Your task to perform on an android device: open app "Facebook Messenger" (install if not already installed) Image 0: 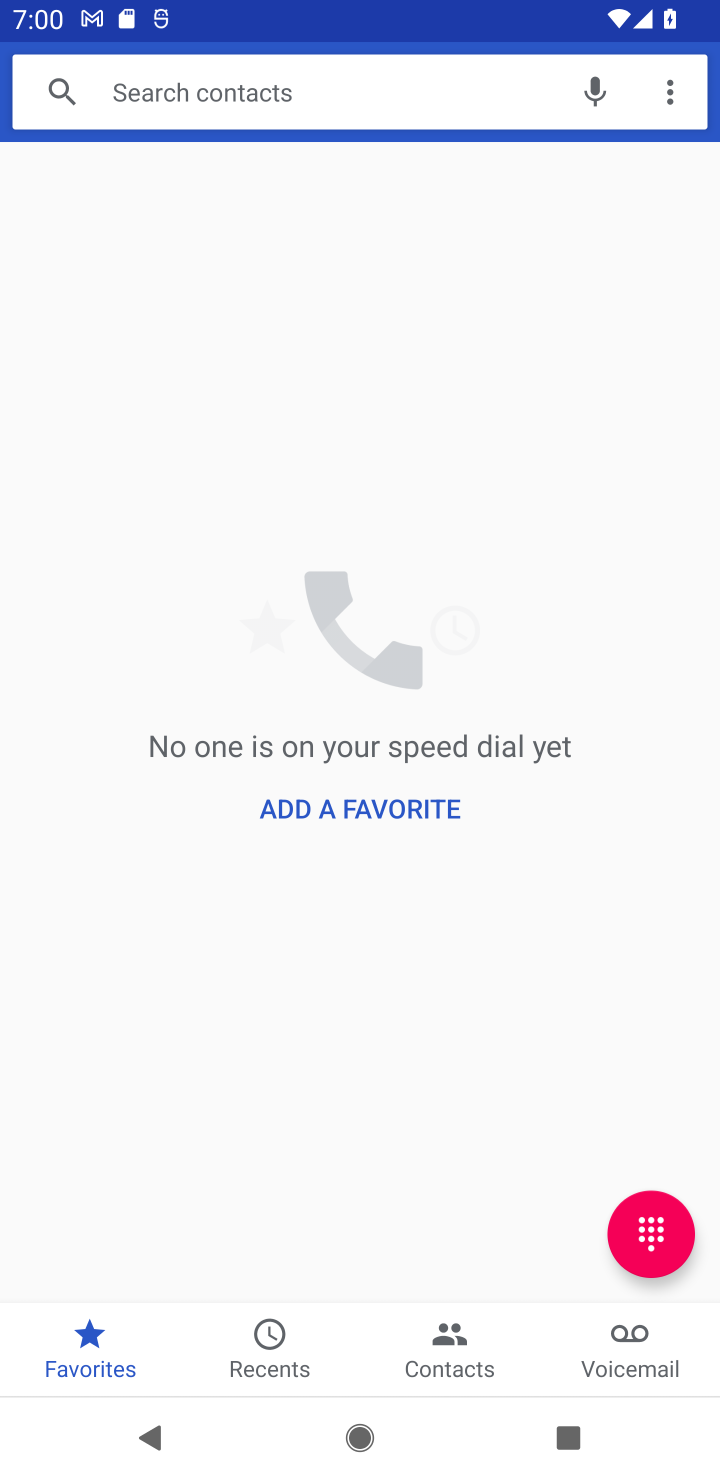
Step 0: press home button
Your task to perform on an android device: open app "Facebook Messenger" (install if not already installed) Image 1: 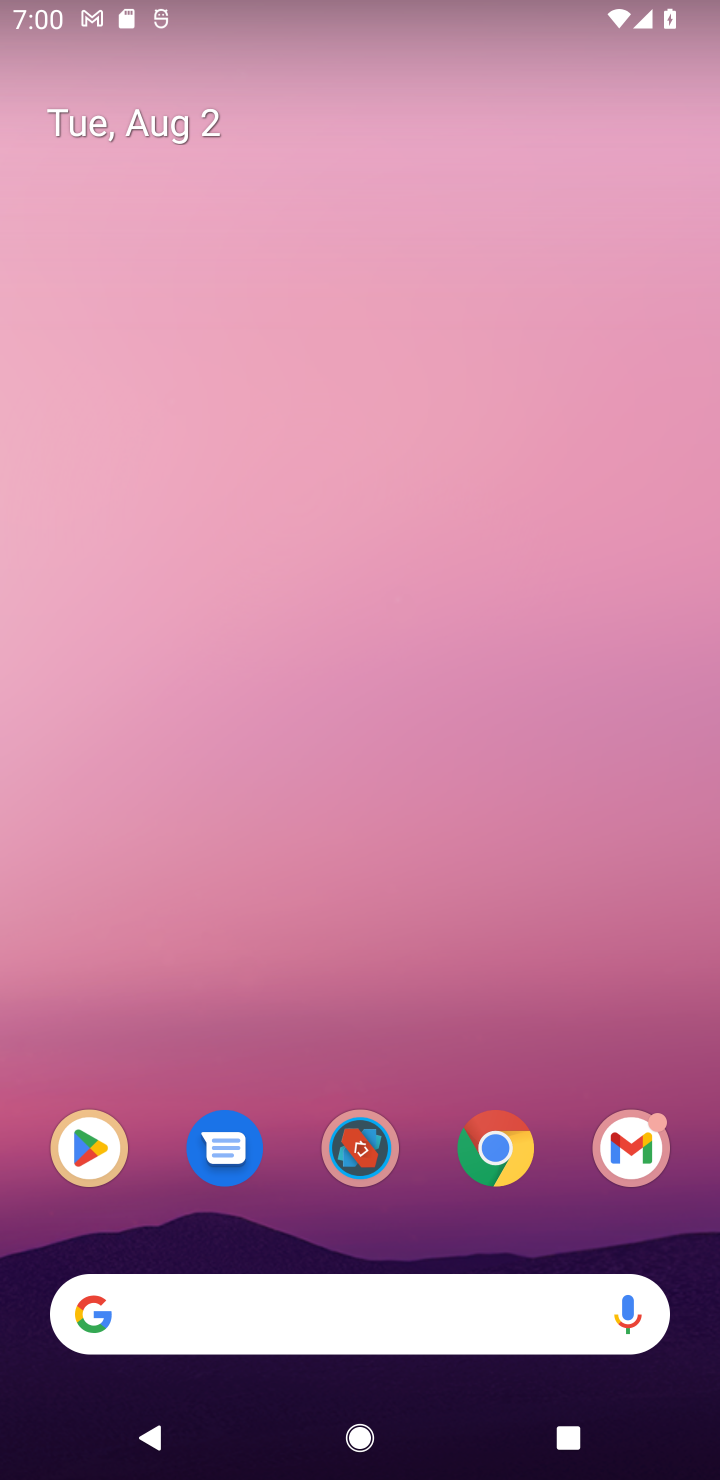
Step 1: drag from (627, 1007) to (263, 34)
Your task to perform on an android device: open app "Facebook Messenger" (install if not already installed) Image 2: 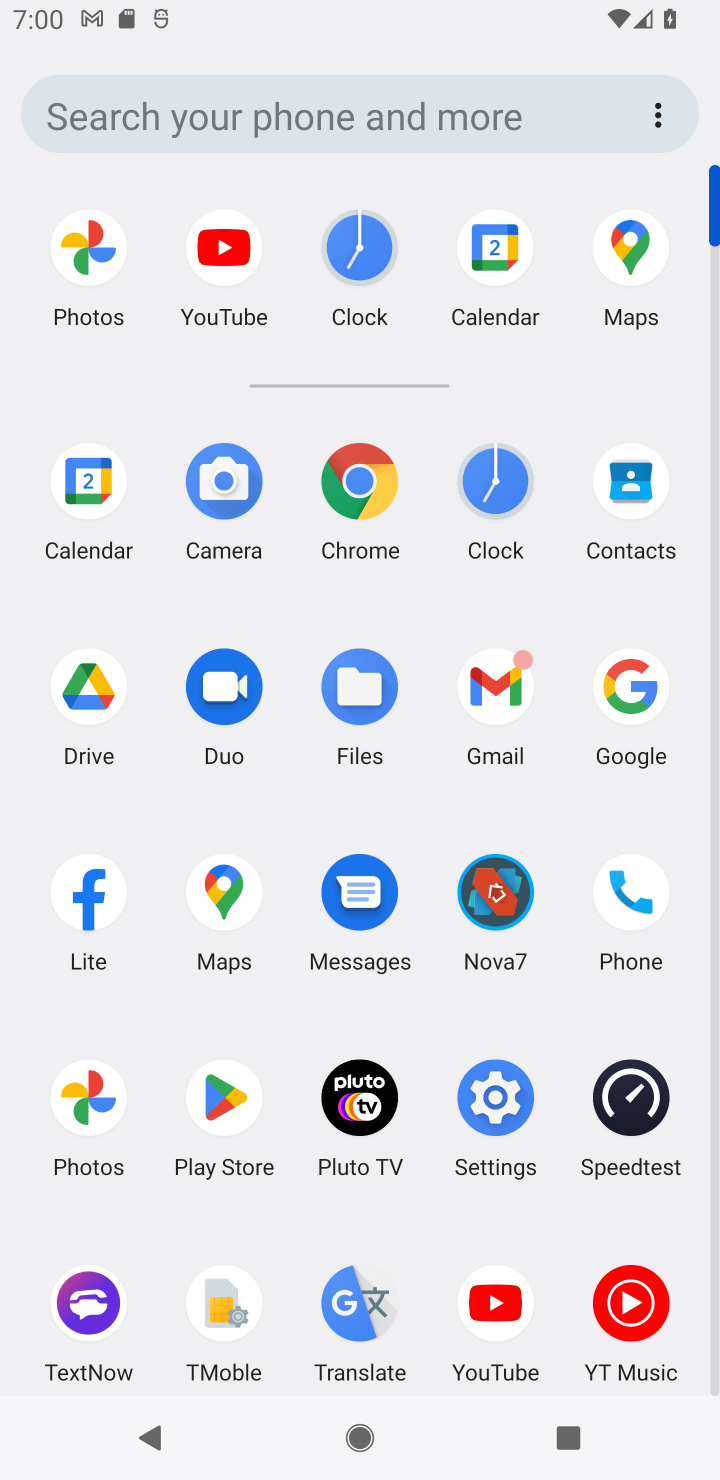
Step 2: click (201, 1083)
Your task to perform on an android device: open app "Facebook Messenger" (install if not already installed) Image 3: 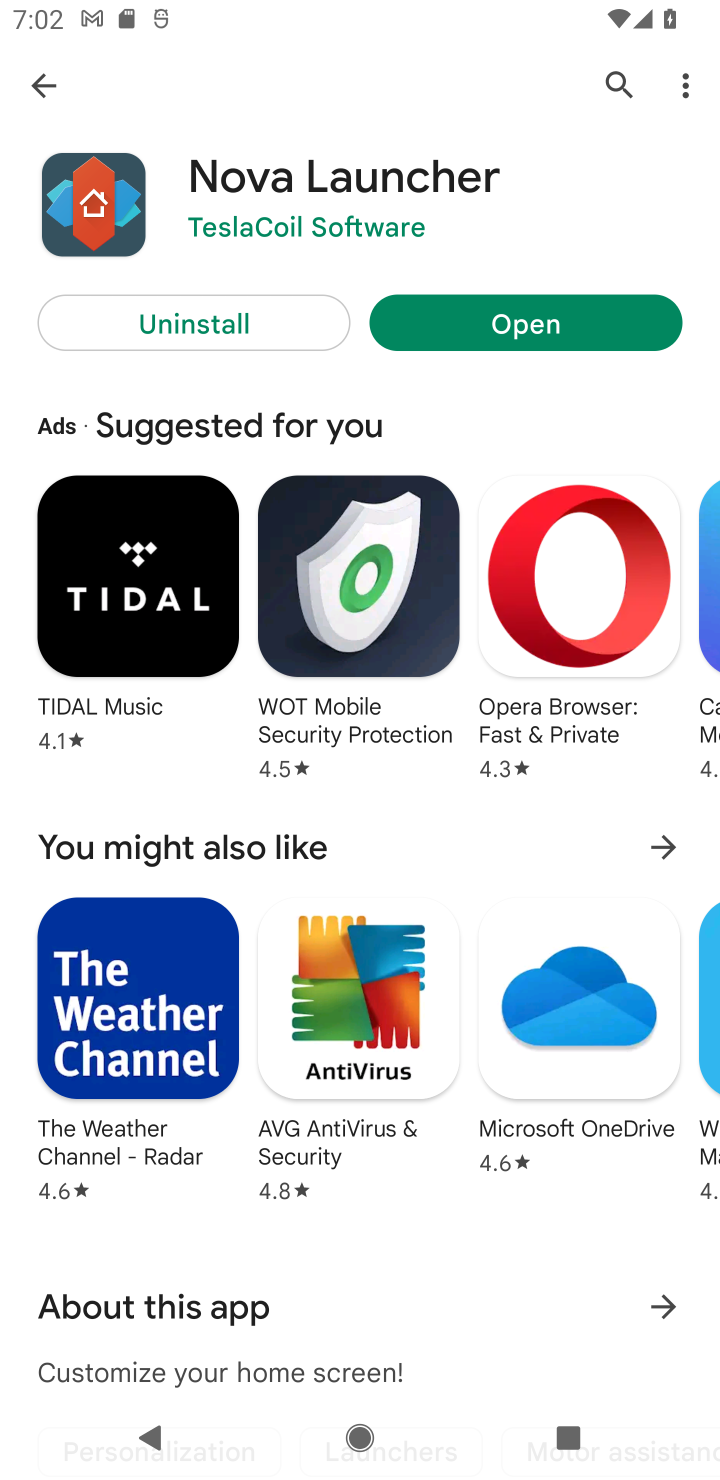
Step 3: press back button
Your task to perform on an android device: open app "Facebook Messenger" (install if not already installed) Image 4: 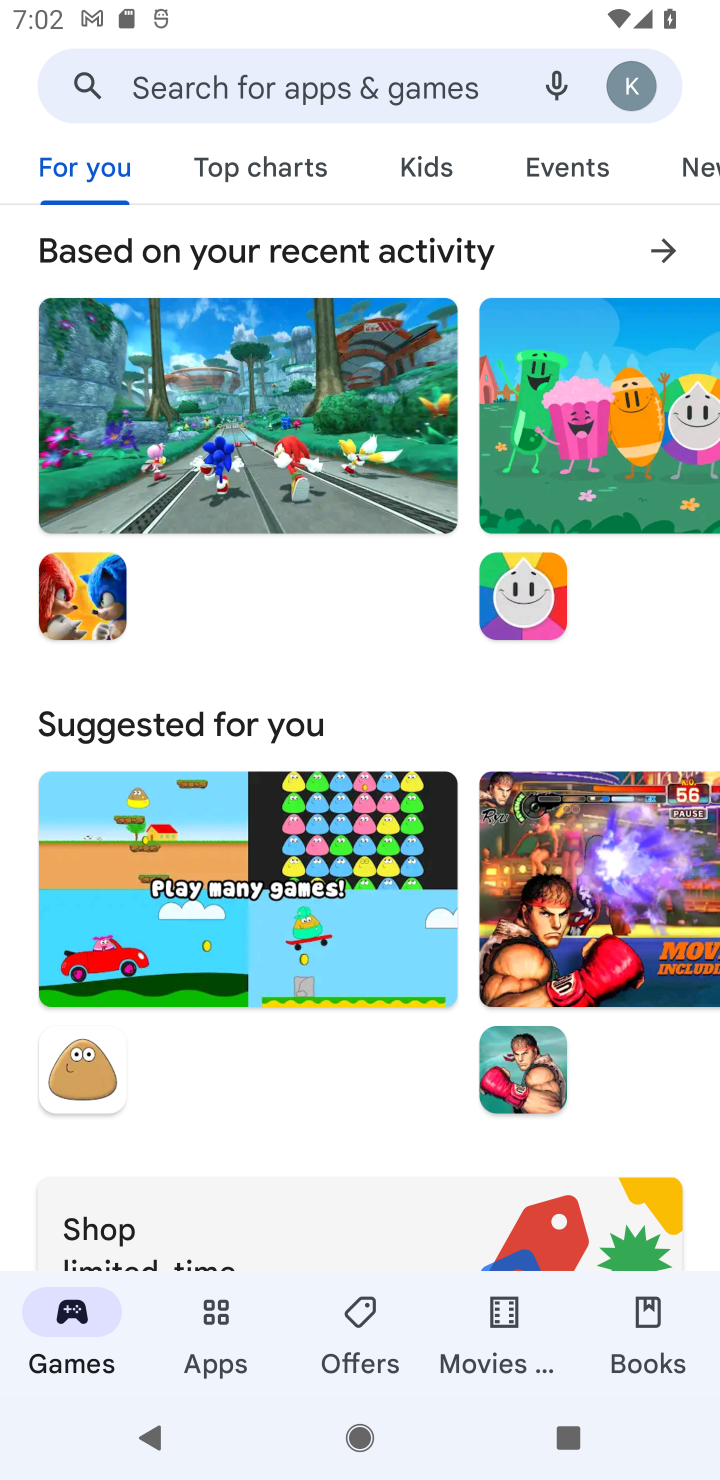
Step 4: click (329, 72)
Your task to perform on an android device: open app "Facebook Messenger" (install if not already installed) Image 5: 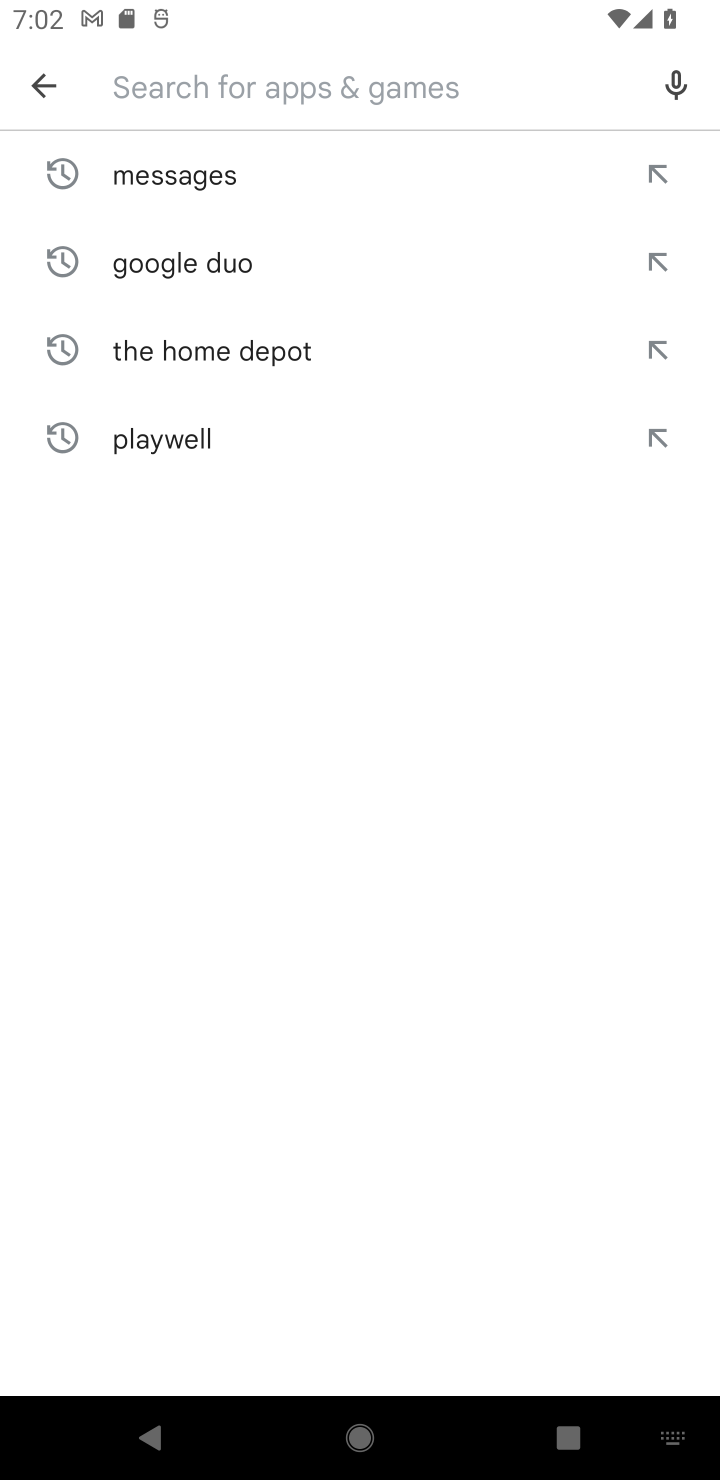
Step 5: type "Facebook Messenger"
Your task to perform on an android device: open app "Facebook Messenger" (install if not already installed) Image 6: 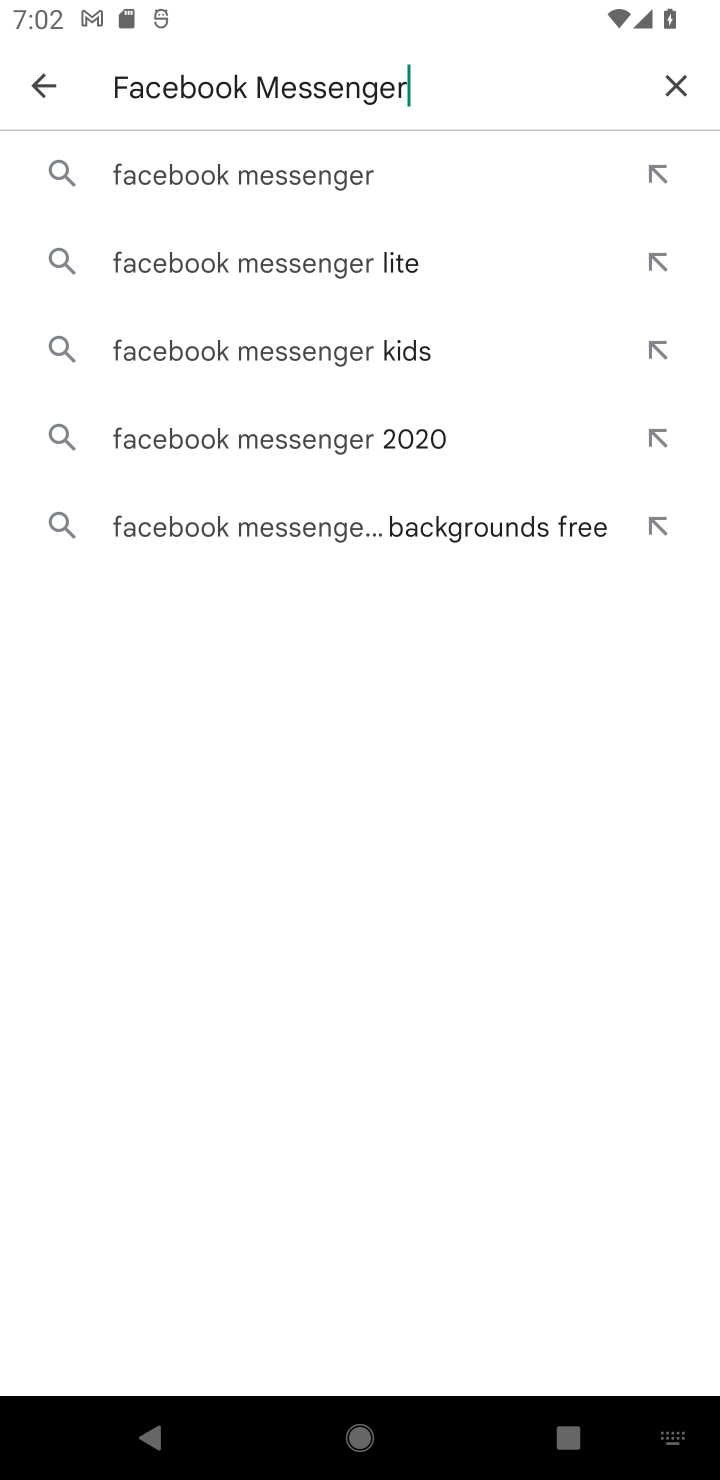
Step 6: click (208, 184)
Your task to perform on an android device: open app "Facebook Messenger" (install if not already installed) Image 7: 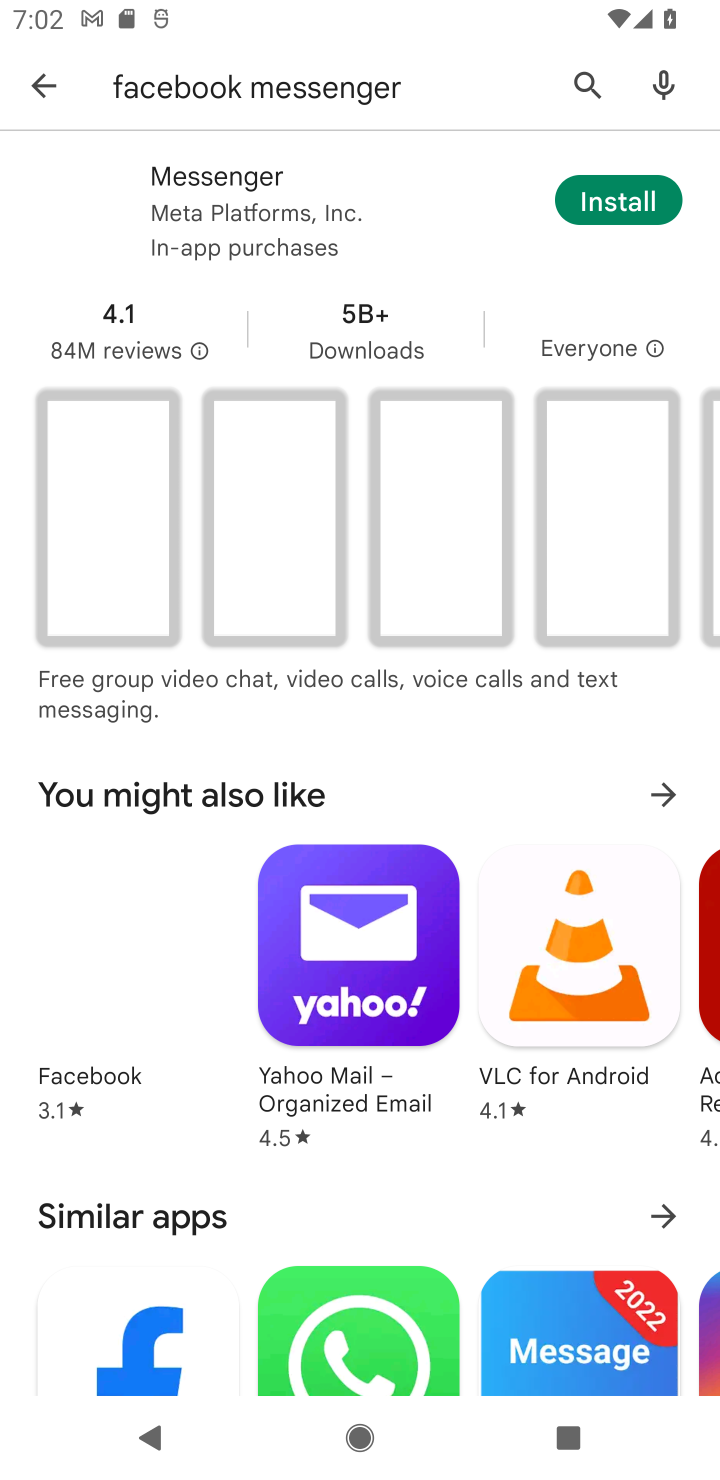
Step 7: task complete